Your task to perform on an android device: empty trash in the gmail app Image 0: 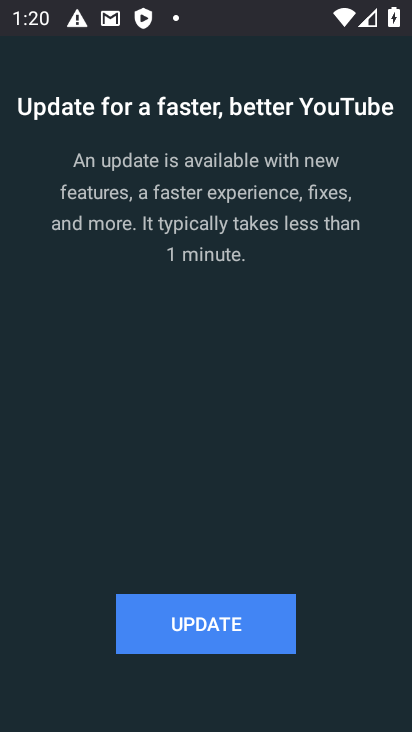
Step 0: press home button
Your task to perform on an android device: empty trash in the gmail app Image 1: 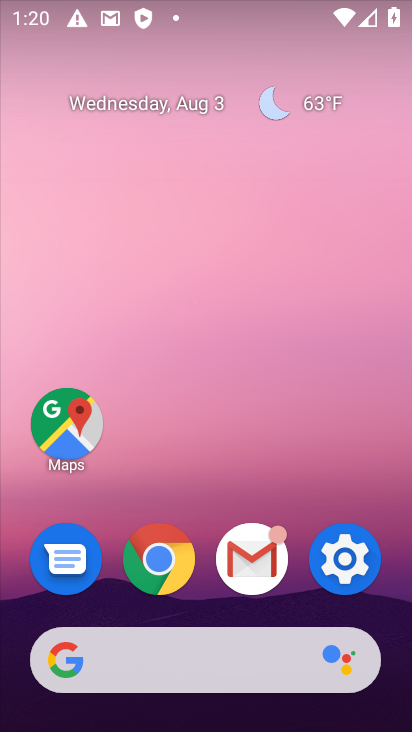
Step 1: click (250, 570)
Your task to perform on an android device: empty trash in the gmail app Image 2: 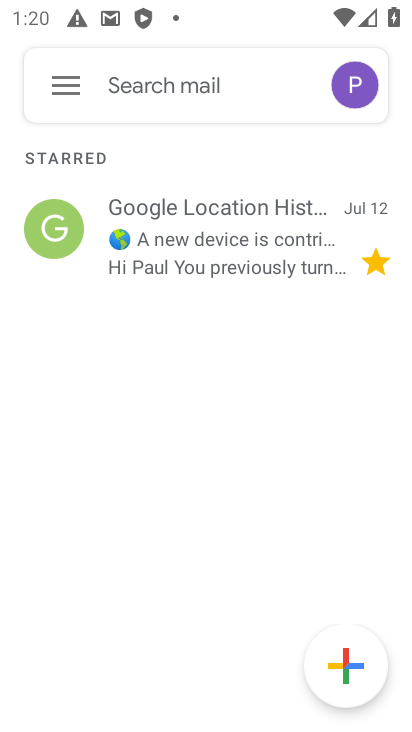
Step 2: click (60, 87)
Your task to perform on an android device: empty trash in the gmail app Image 3: 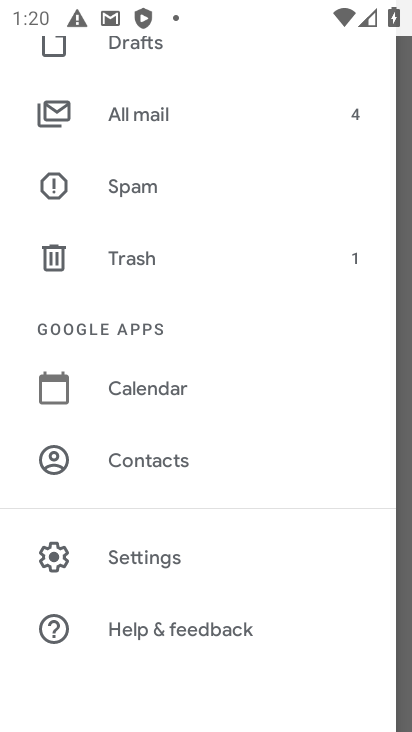
Step 3: click (147, 260)
Your task to perform on an android device: empty trash in the gmail app Image 4: 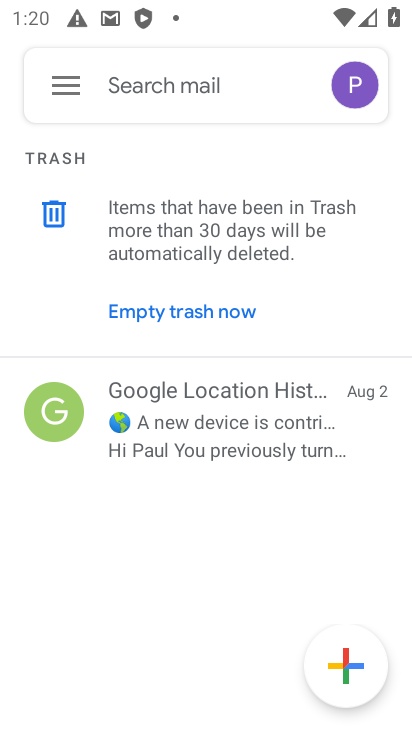
Step 4: click (191, 324)
Your task to perform on an android device: empty trash in the gmail app Image 5: 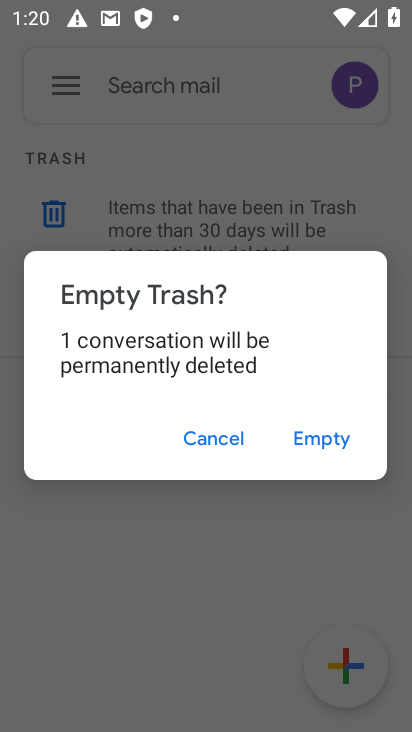
Step 5: click (302, 447)
Your task to perform on an android device: empty trash in the gmail app Image 6: 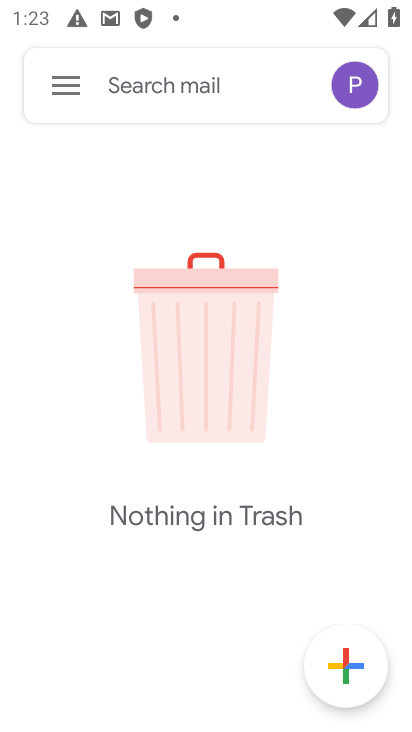
Step 6: task complete